Your task to perform on an android device: toggle notifications settings in the gmail app Image 0: 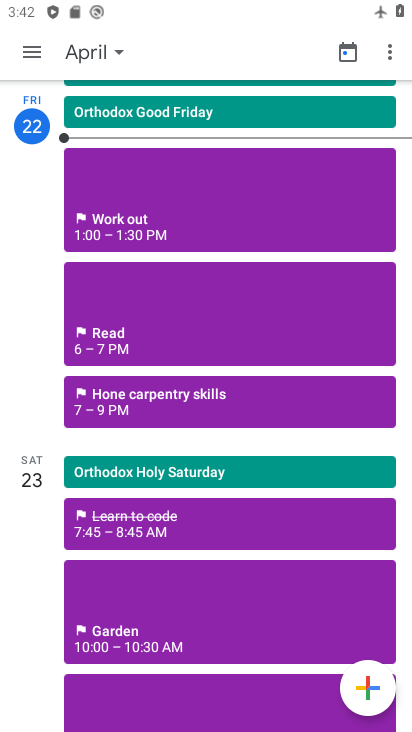
Step 0: press home button
Your task to perform on an android device: toggle notifications settings in the gmail app Image 1: 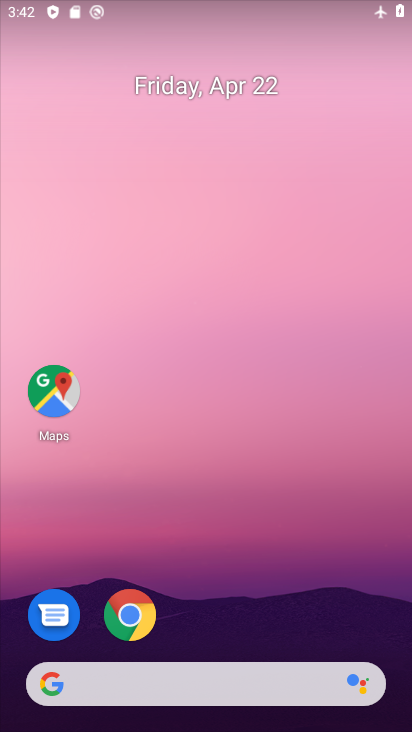
Step 1: drag from (224, 632) to (235, 393)
Your task to perform on an android device: toggle notifications settings in the gmail app Image 2: 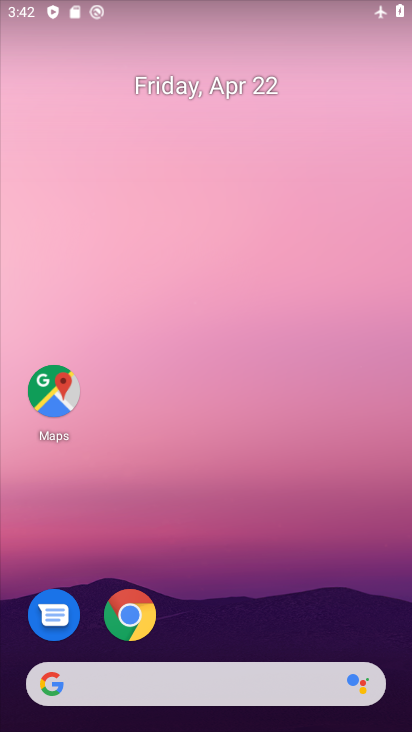
Step 2: drag from (229, 529) to (294, 289)
Your task to perform on an android device: toggle notifications settings in the gmail app Image 3: 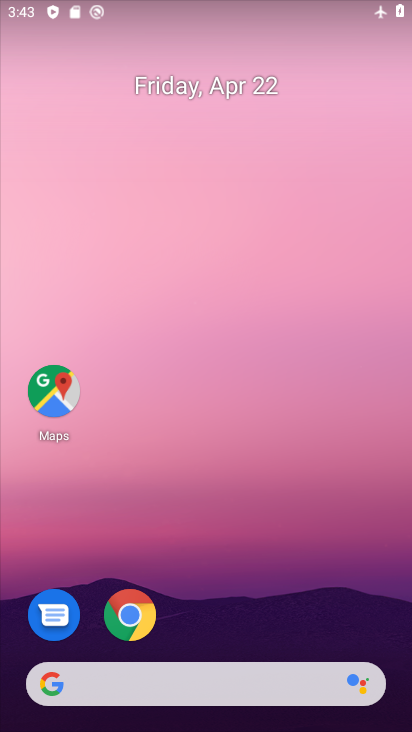
Step 3: drag from (271, 631) to (376, 141)
Your task to perform on an android device: toggle notifications settings in the gmail app Image 4: 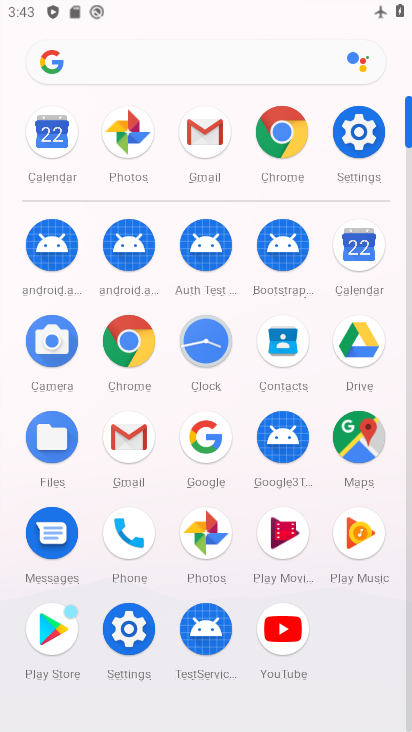
Step 4: click (208, 128)
Your task to perform on an android device: toggle notifications settings in the gmail app Image 5: 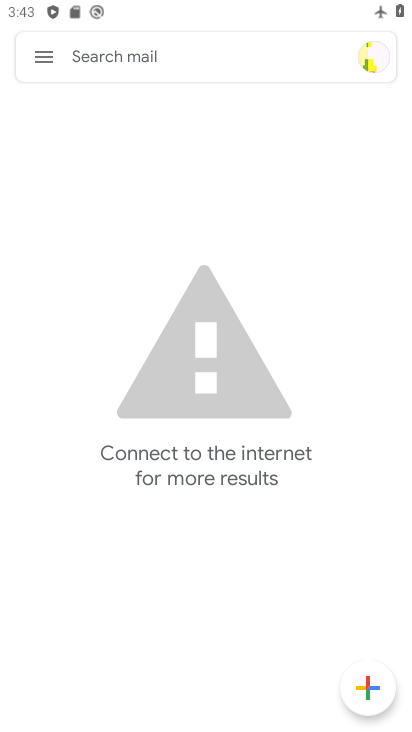
Step 5: click (41, 58)
Your task to perform on an android device: toggle notifications settings in the gmail app Image 6: 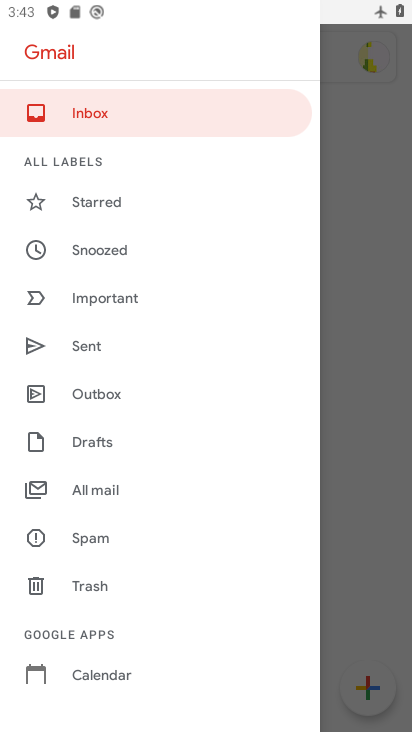
Step 6: drag from (157, 606) to (238, 331)
Your task to perform on an android device: toggle notifications settings in the gmail app Image 7: 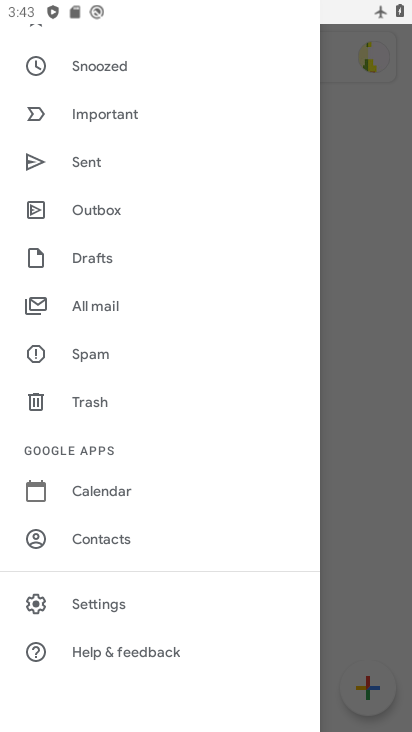
Step 7: click (120, 603)
Your task to perform on an android device: toggle notifications settings in the gmail app Image 8: 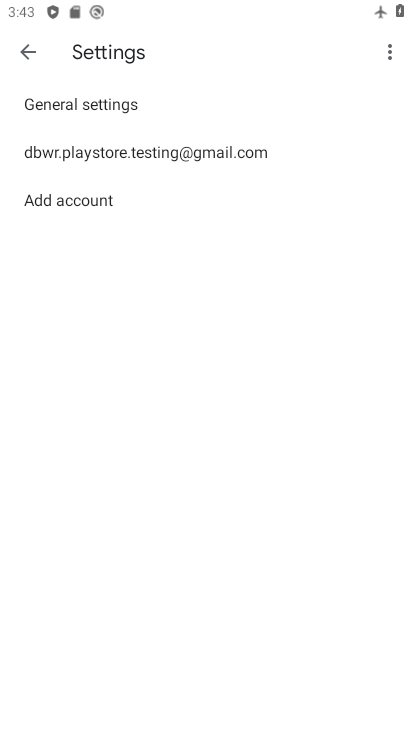
Step 8: click (85, 107)
Your task to perform on an android device: toggle notifications settings in the gmail app Image 9: 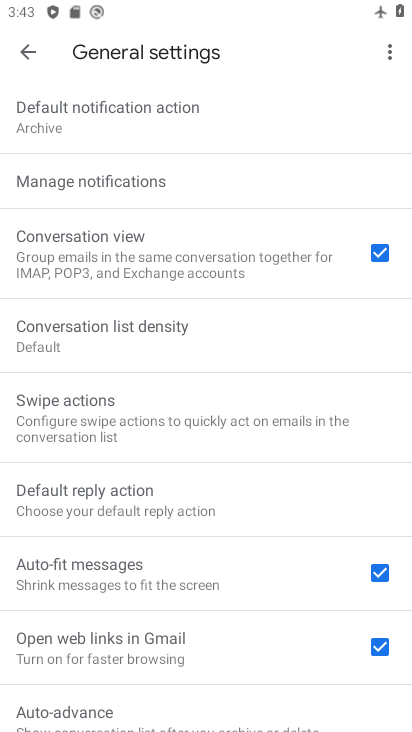
Step 9: click (76, 188)
Your task to perform on an android device: toggle notifications settings in the gmail app Image 10: 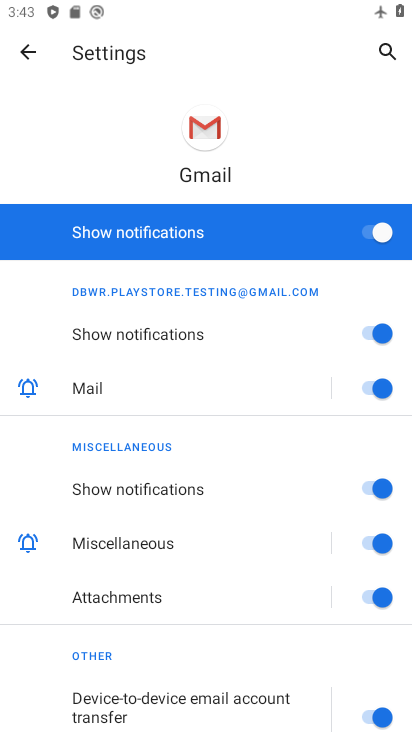
Step 10: click (365, 237)
Your task to perform on an android device: toggle notifications settings in the gmail app Image 11: 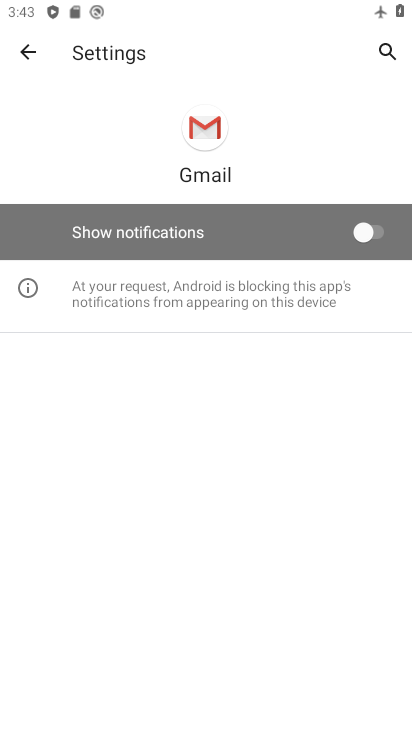
Step 11: task complete